Your task to perform on an android device: turn off javascript in the chrome app Image 0: 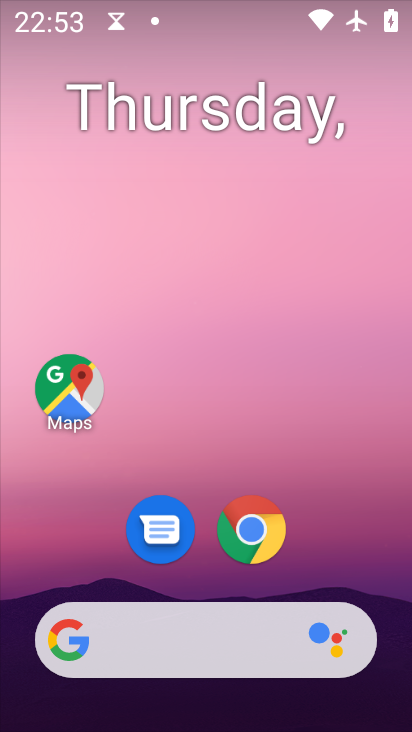
Step 0: click (252, 535)
Your task to perform on an android device: turn off javascript in the chrome app Image 1: 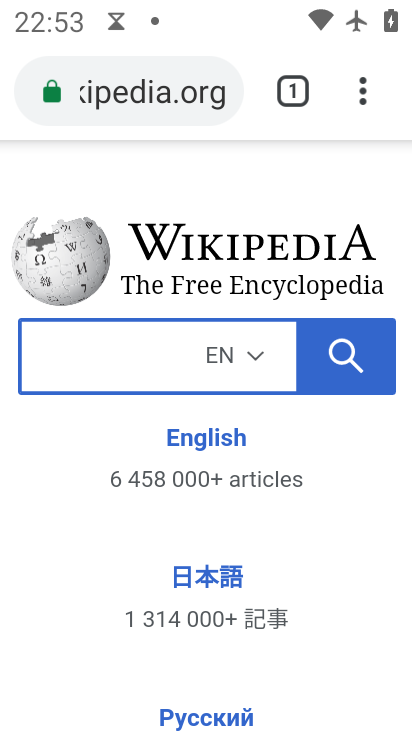
Step 1: click (362, 93)
Your task to perform on an android device: turn off javascript in the chrome app Image 2: 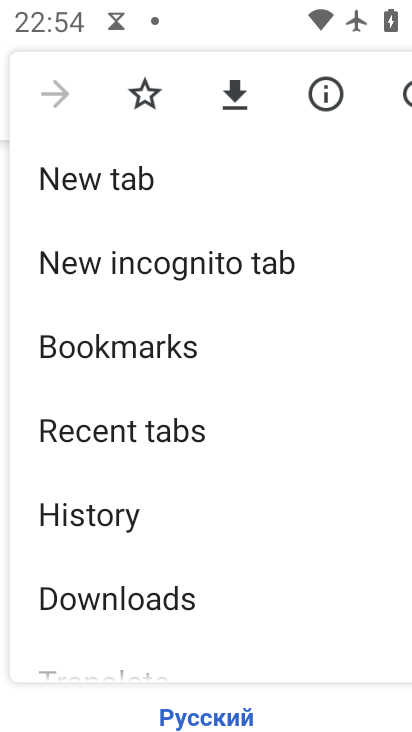
Step 2: drag from (213, 607) to (203, 272)
Your task to perform on an android device: turn off javascript in the chrome app Image 3: 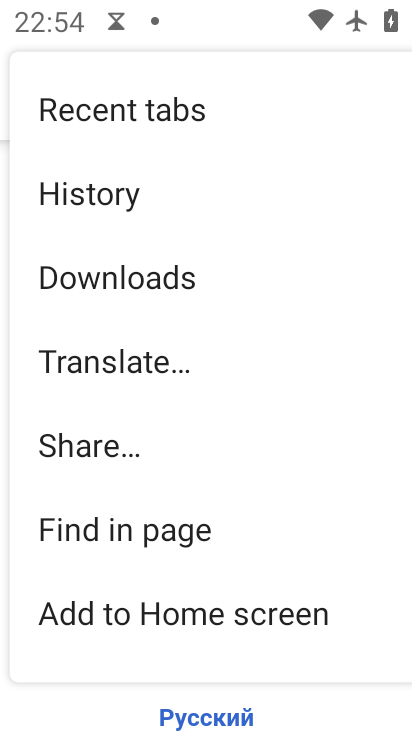
Step 3: drag from (200, 563) to (207, 340)
Your task to perform on an android device: turn off javascript in the chrome app Image 4: 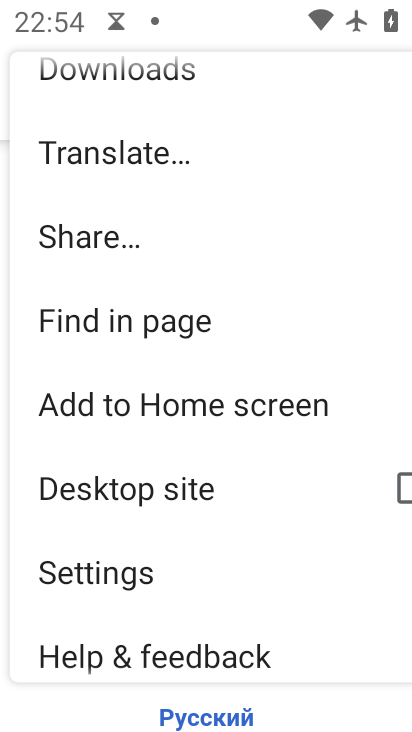
Step 4: click (115, 559)
Your task to perform on an android device: turn off javascript in the chrome app Image 5: 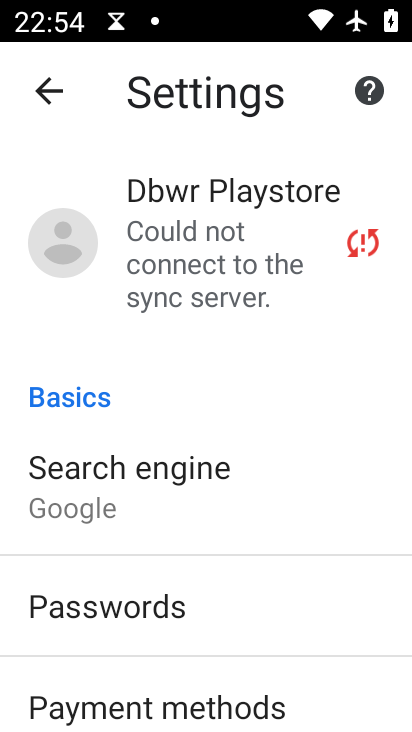
Step 5: drag from (154, 659) to (170, 286)
Your task to perform on an android device: turn off javascript in the chrome app Image 6: 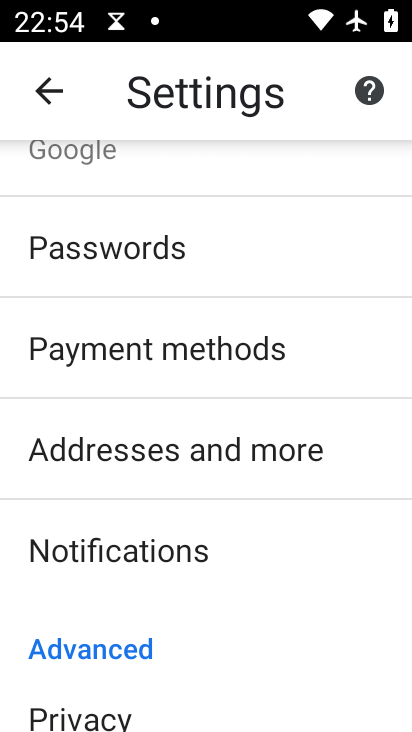
Step 6: drag from (189, 663) to (179, 324)
Your task to perform on an android device: turn off javascript in the chrome app Image 7: 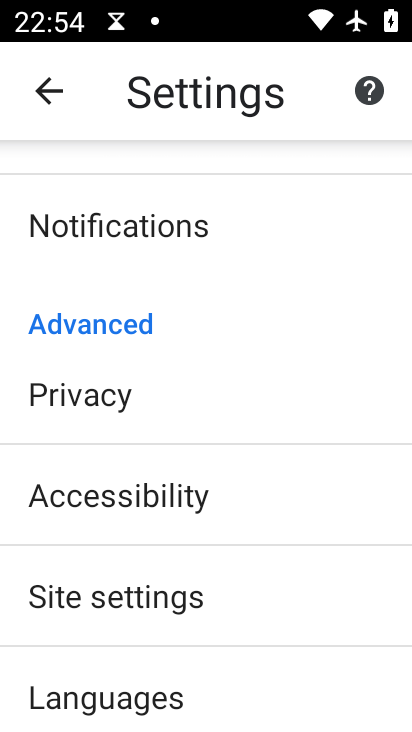
Step 7: click (132, 605)
Your task to perform on an android device: turn off javascript in the chrome app Image 8: 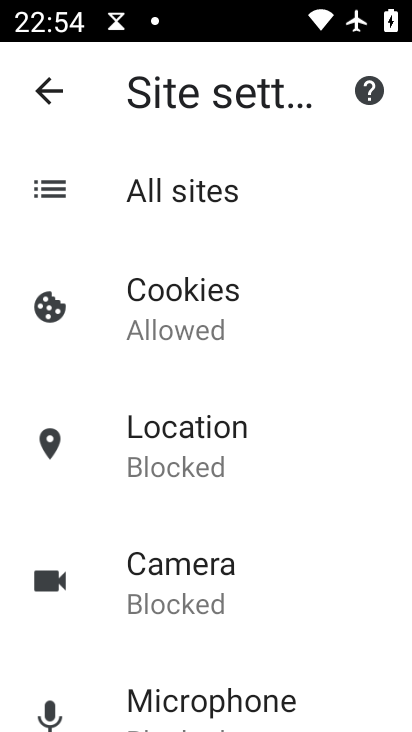
Step 8: drag from (176, 676) to (193, 414)
Your task to perform on an android device: turn off javascript in the chrome app Image 9: 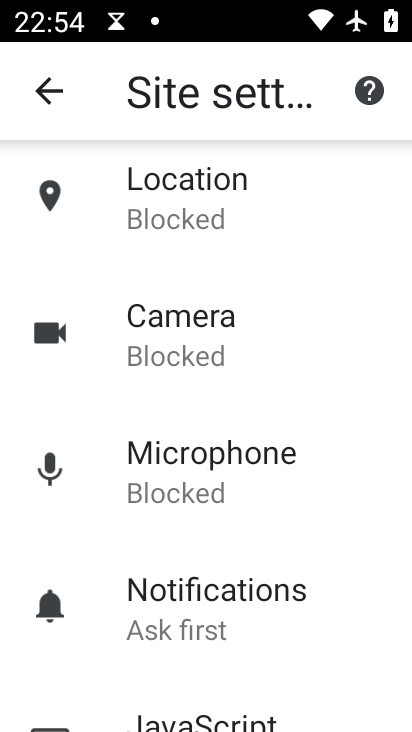
Step 9: drag from (191, 636) to (192, 408)
Your task to perform on an android device: turn off javascript in the chrome app Image 10: 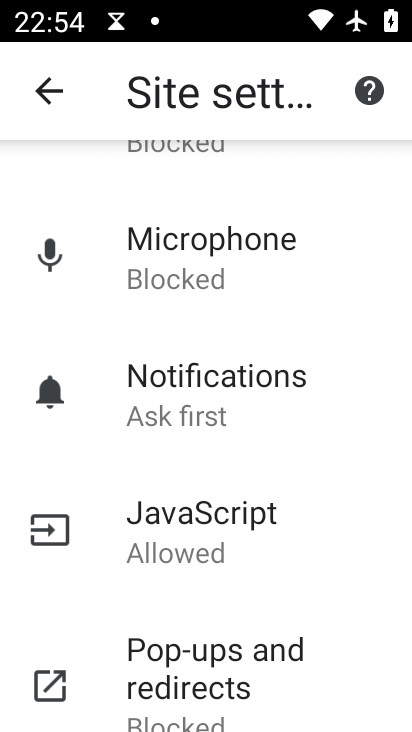
Step 10: click (201, 534)
Your task to perform on an android device: turn off javascript in the chrome app Image 11: 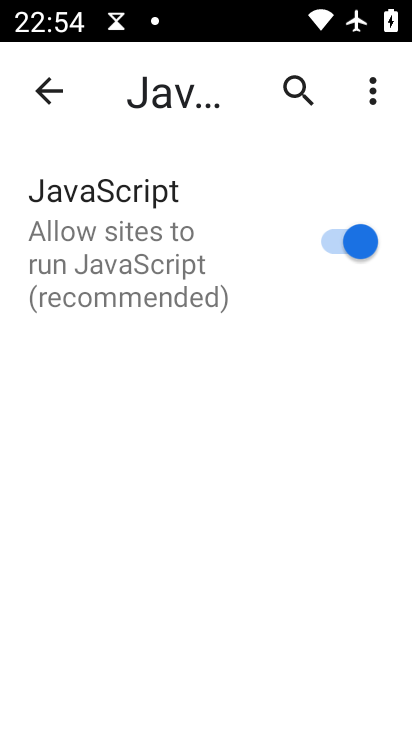
Step 11: click (329, 239)
Your task to perform on an android device: turn off javascript in the chrome app Image 12: 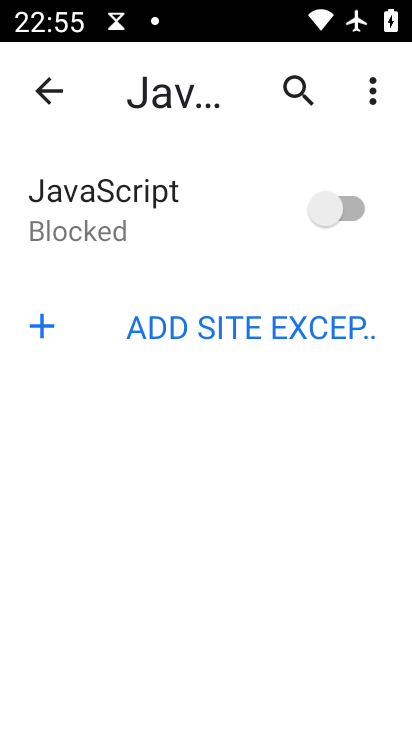
Step 12: task complete